Your task to perform on an android device: Open maps Image 0: 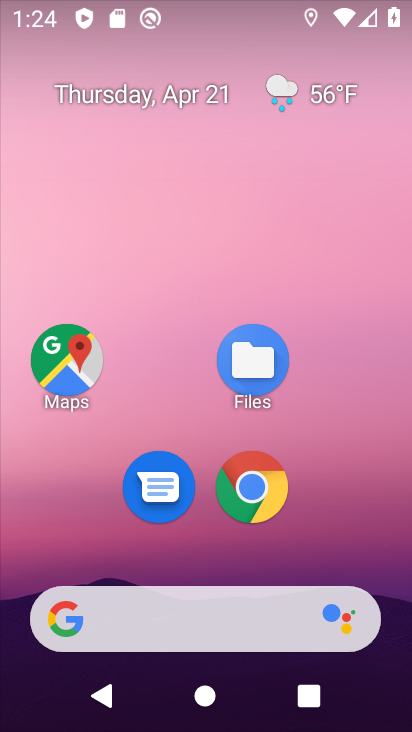
Step 0: drag from (385, 526) to (373, 146)
Your task to perform on an android device: Open maps Image 1: 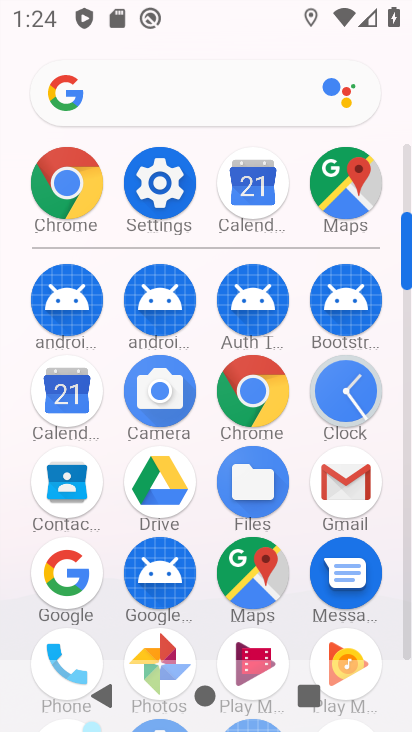
Step 1: click (250, 595)
Your task to perform on an android device: Open maps Image 2: 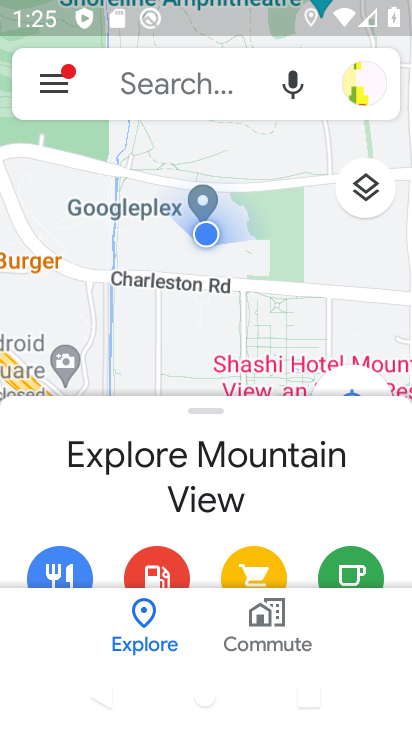
Step 2: task complete